Your task to perform on an android device: Open Chrome and go to settings Image 0: 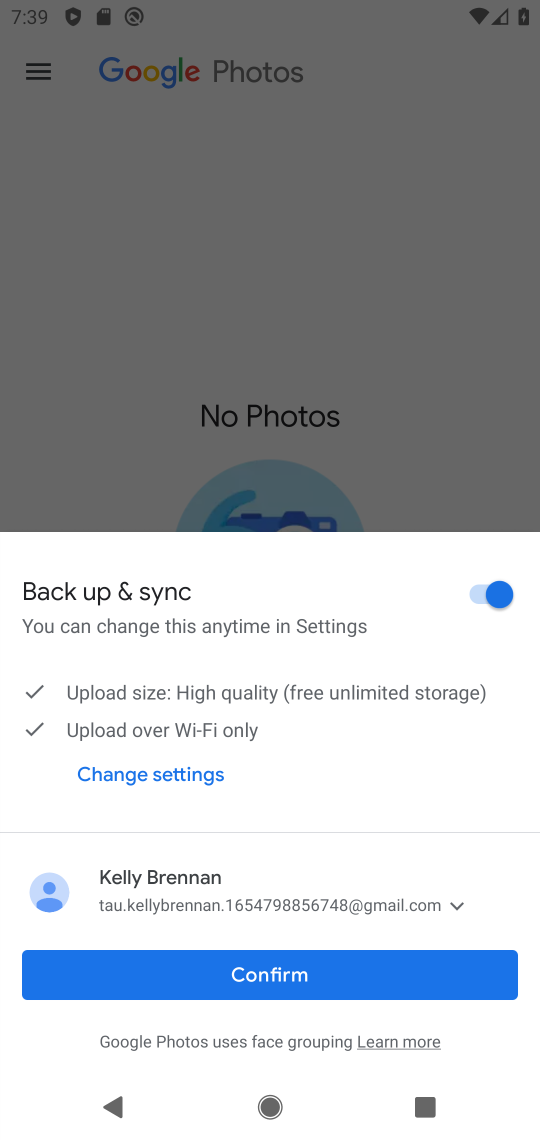
Step 0: press home button
Your task to perform on an android device: Open Chrome and go to settings Image 1: 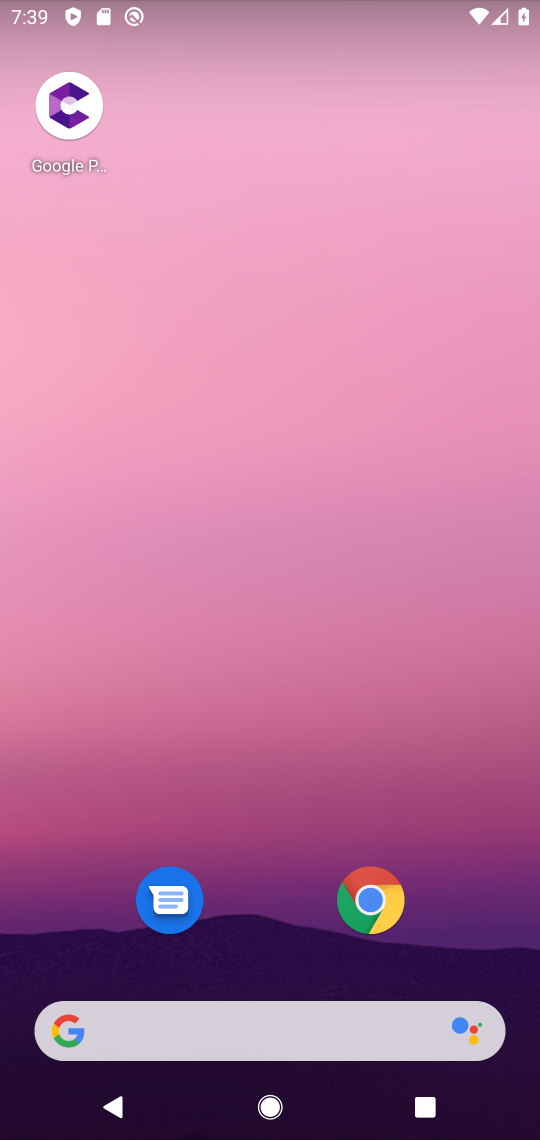
Step 1: drag from (184, 895) to (144, 281)
Your task to perform on an android device: Open Chrome and go to settings Image 2: 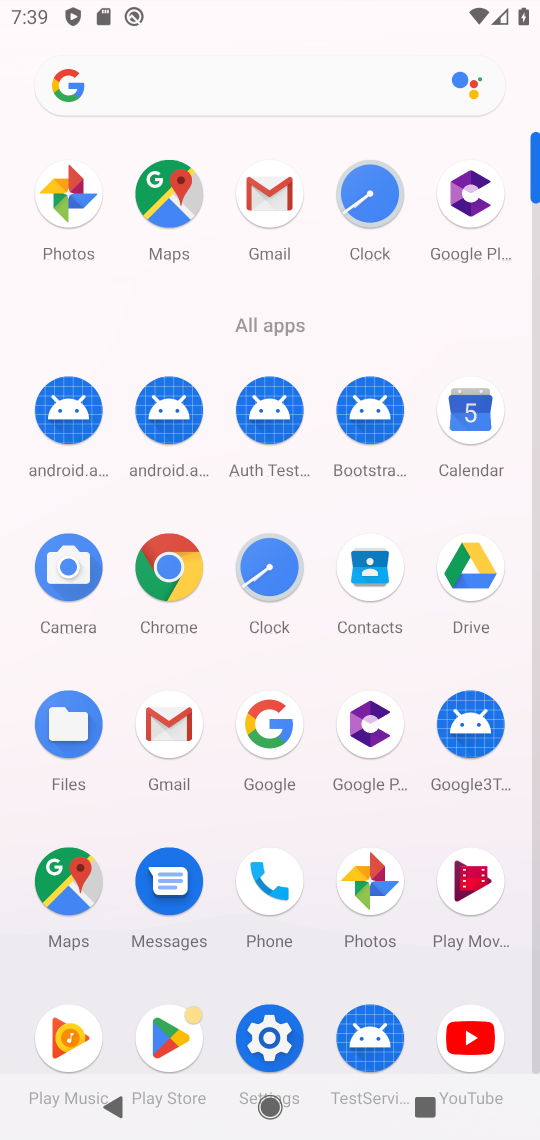
Step 2: click (168, 568)
Your task to perform on an android device: Open Chrome and go to settings Image 3: 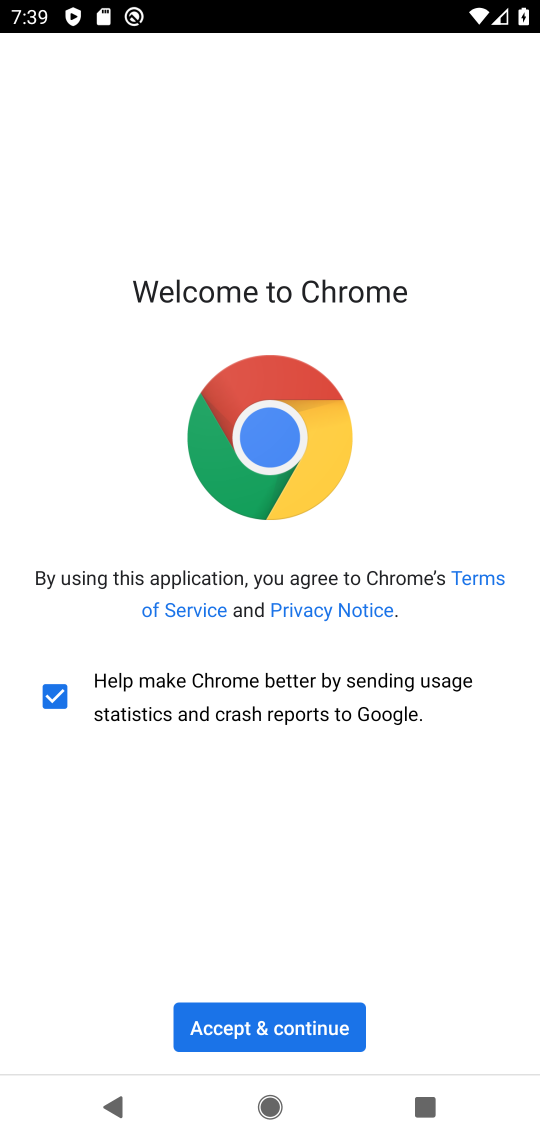
Step 3: click (331, 1031)
Your task to perform on an android device: Open Chrome and go to settings Image 4: 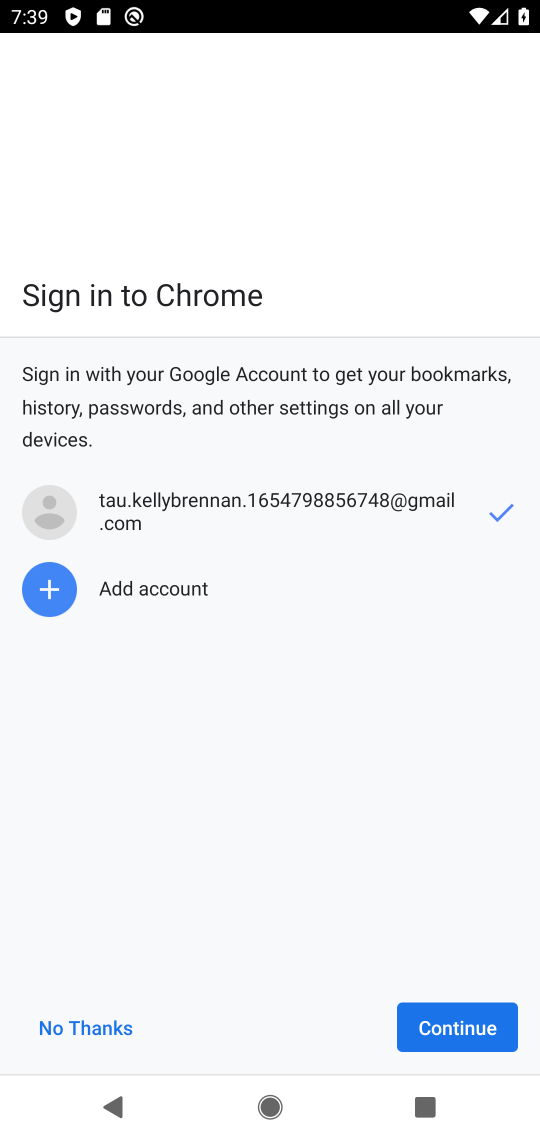
Step 4: click (413, 1031)
Your task to perform on an android device: Open Chrome and go to settings Image 5: 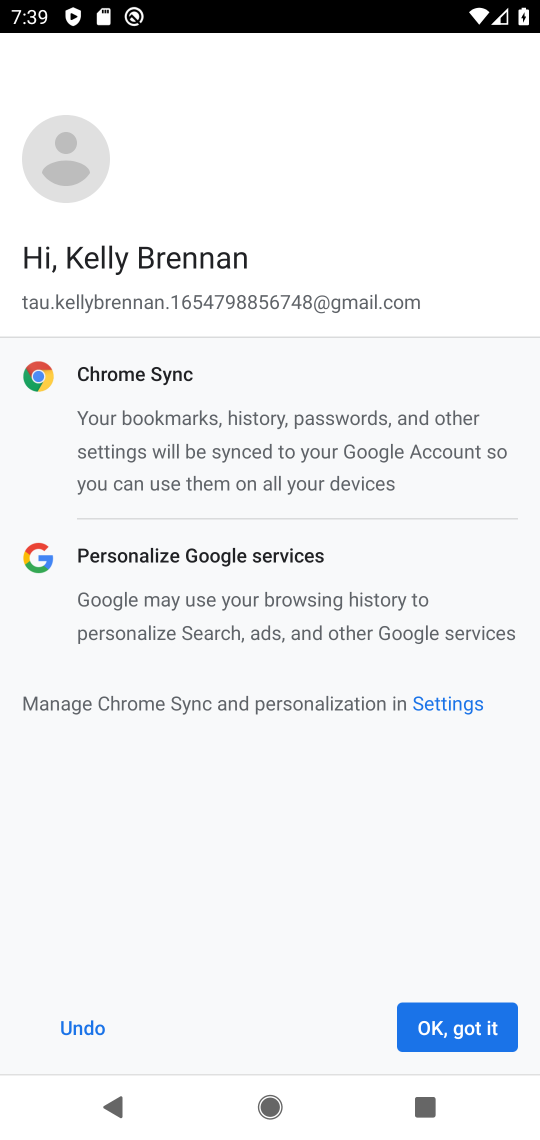
Step 5: click (415, 1031)
Your task to perform on an android device: Open Chrome and go to settings Image 6: 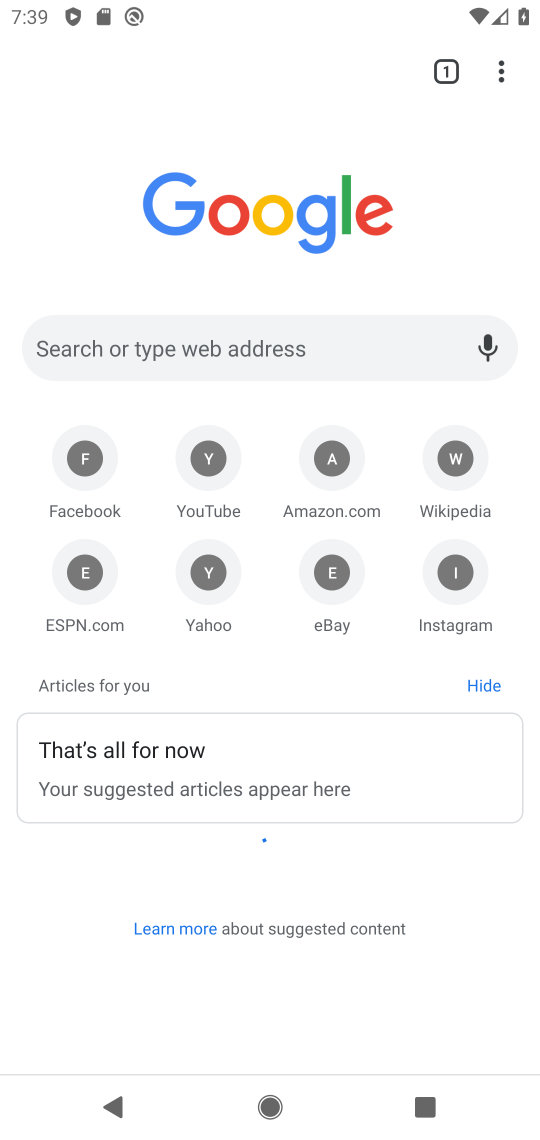
Step 6: click (499, 76)
Your task to perform on an android device: Open Chrome and go to settings Image 7: 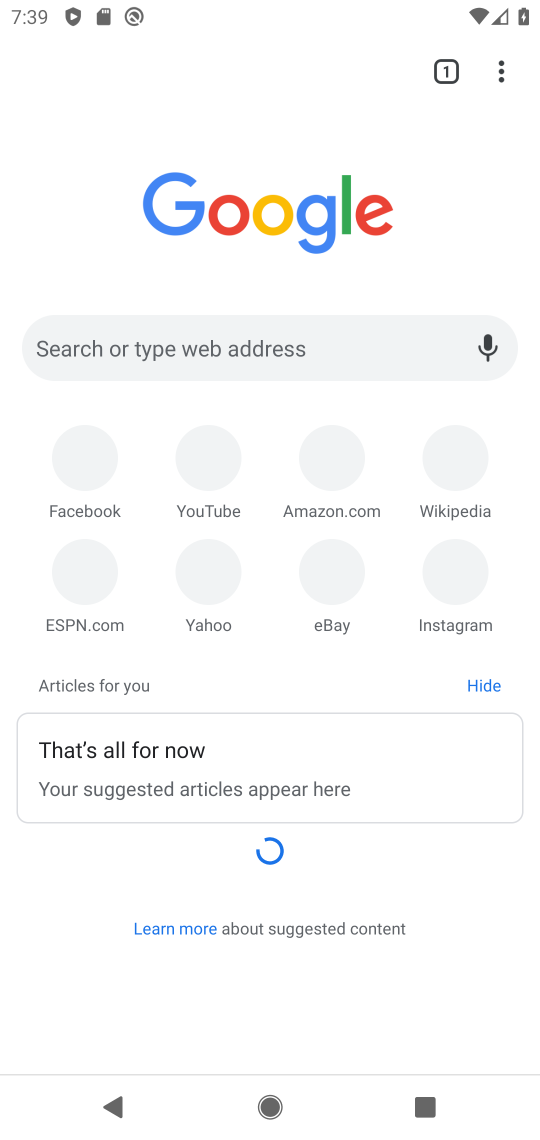
Step 7: click (504, 69)
Your task to perform on an android device: Open Chrome and go to settings Image 8: 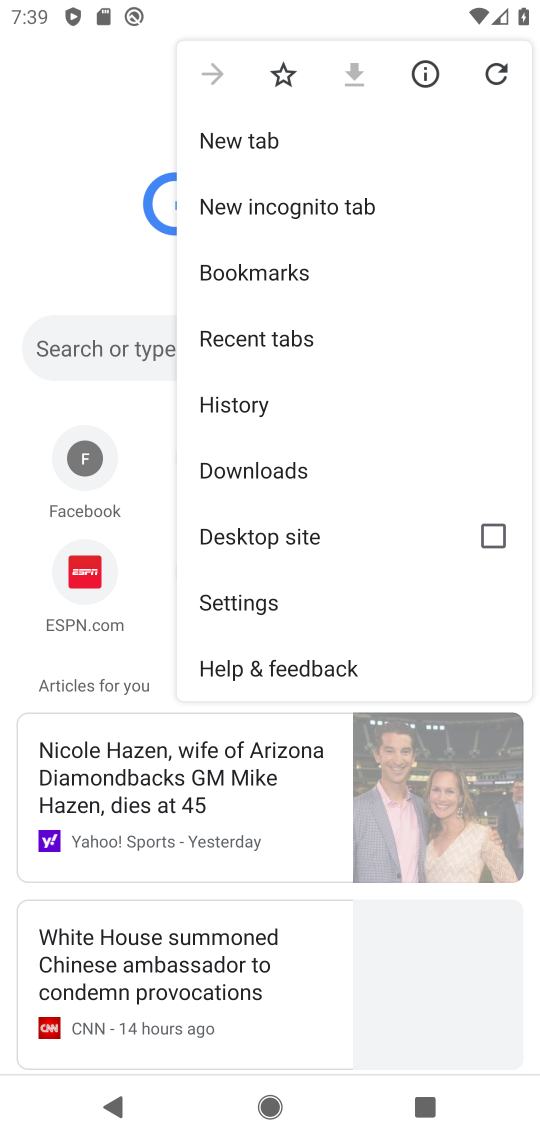
Step 8: click (241, 601)
Your task to perform on an android device: Open Chrome and go to settings Image 9: 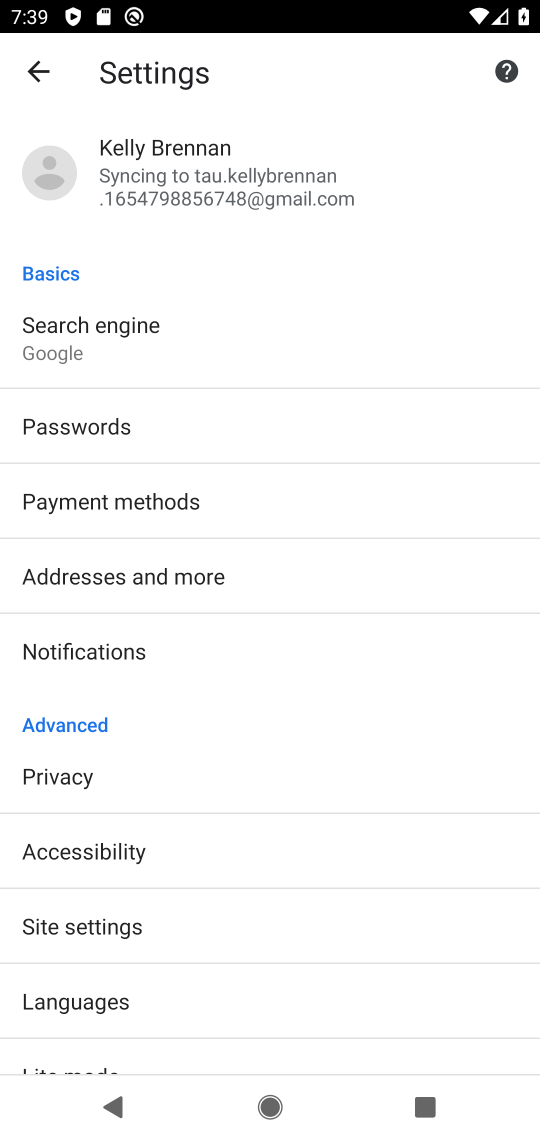
Step 9: task complete